Your task to perform on an android device: Open Android settings Image 0: 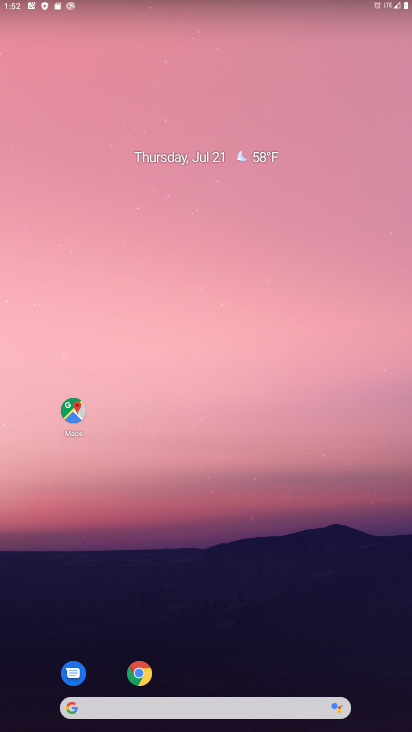
Step 0: drag from (223, 661) to (235, 181)
Your task to perform on an android device: Open Android settings Image 1: 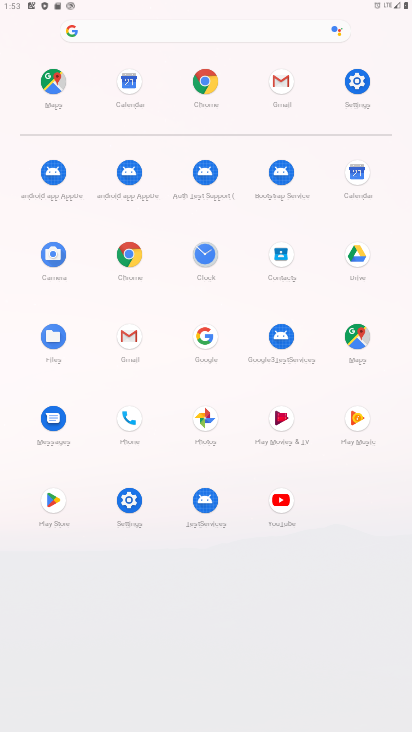
Step 1: click (364, 69)
Your task to perform on an android device: Open Android settings Image 2: 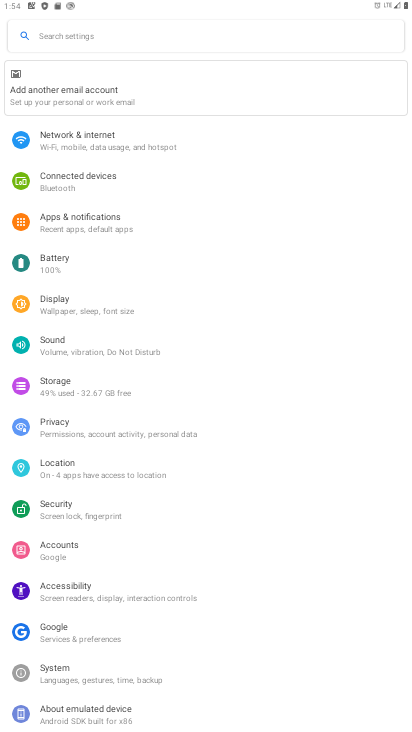
Step 2: task complete